Your task to perform on an android device: open app "Lyft - Rideshare, Bikes, Scooters & Transit" (install if not already installed), go to login, and select forgot password Image 0: 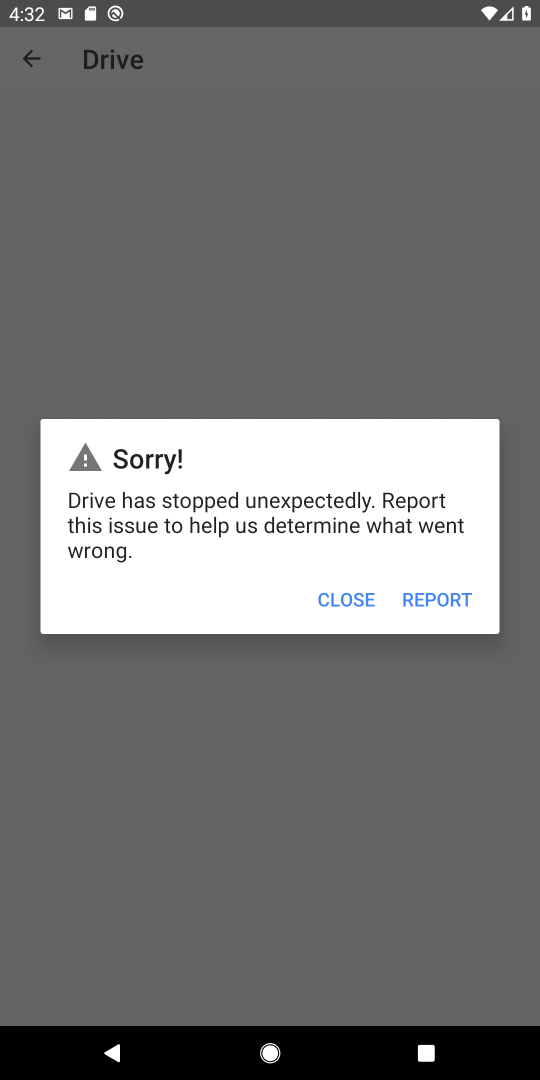
Step 0: press home button
Your task to perform on an android device: open app "Lyft - Rideshare, Bikes, Scooters & Transit" (install if not already installed), go to login, and select forgot password Image 1: 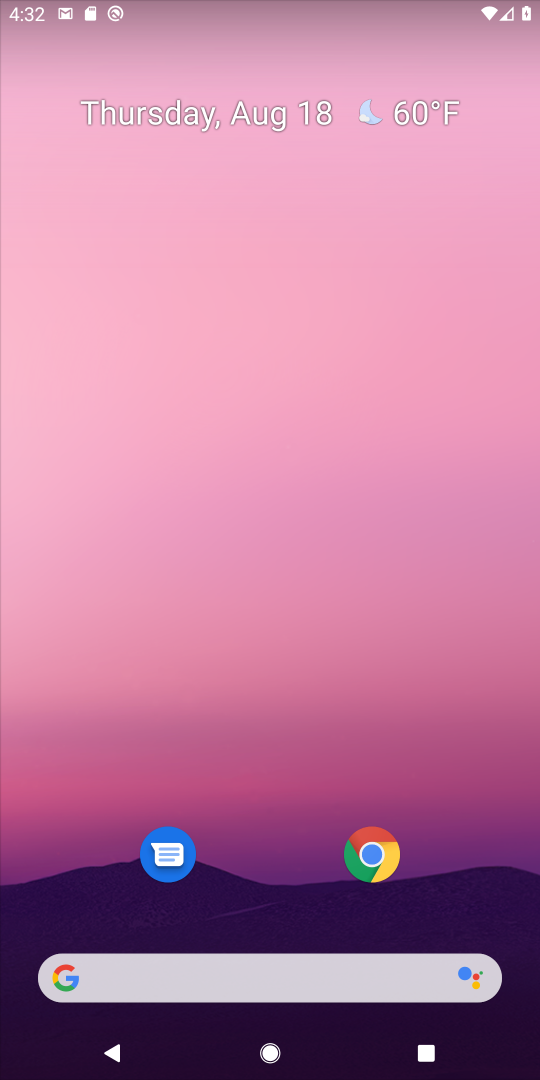
Step 1: drag from (263, 856) to (357, 101)
Your task to perform on an android device: open app "Lyft - Rideshare, Bikes, Scooters & Transit" (install if not already installed), go to login, and select forgot password Image 2: 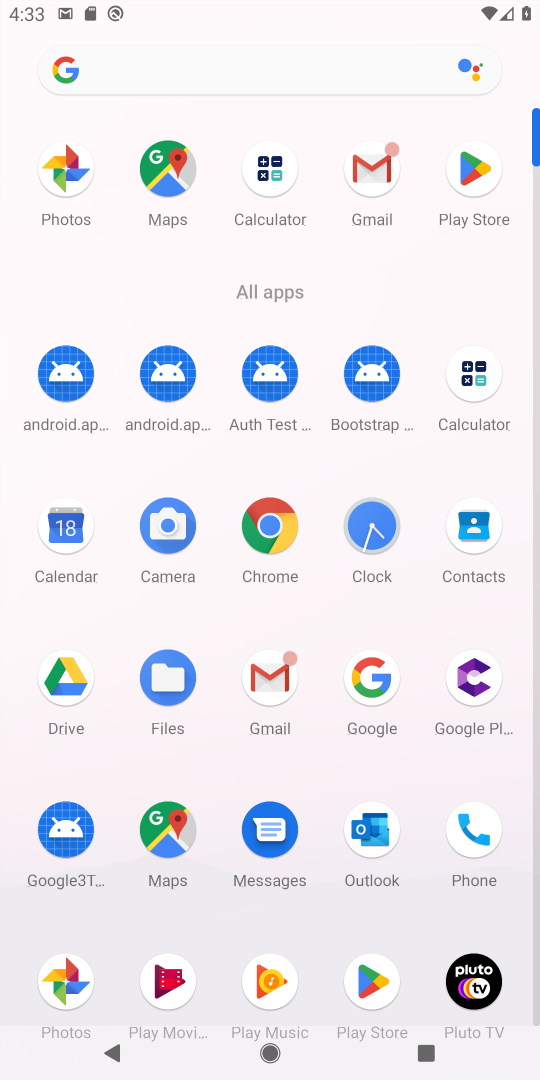
Step 2: click (477, 171)
Your task to perform on an android device: open app "Lyft - Rideshare, Bikes, Scooters & Transit" (install if not already installed), go to login, and select forgot password Image 3: 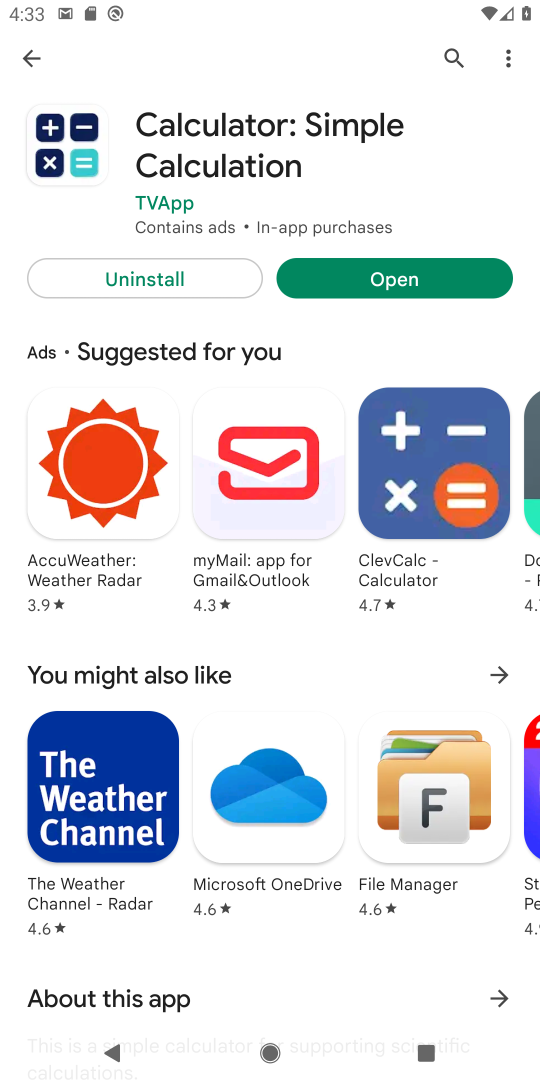
Step 3: click (32, 55)
Your task to perform on an android device: open app "Lyft - Rideshare, Bikes, Scooters & Transit" (install if not already installed), go to login, and select forgot password Image 4: 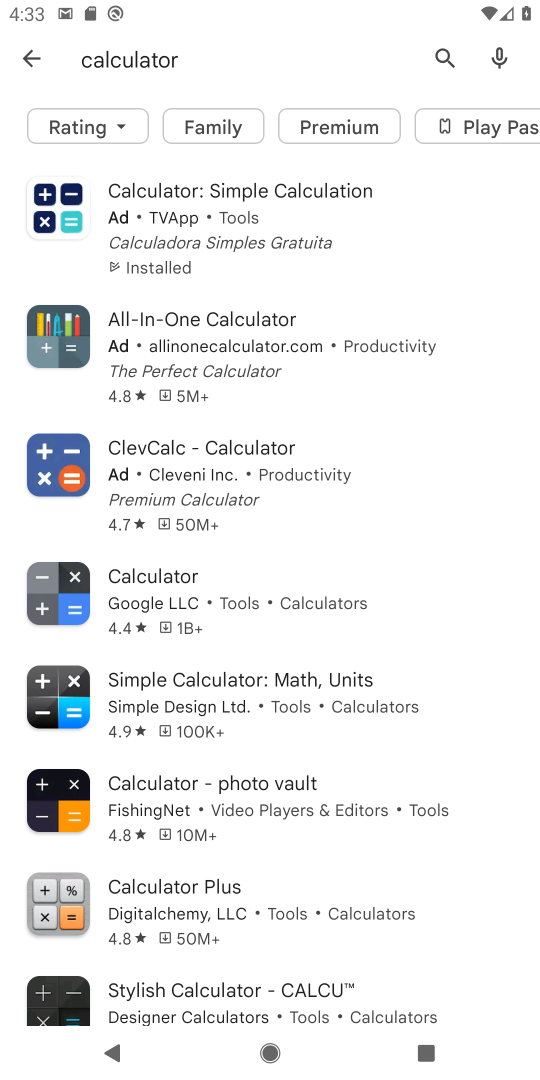
Step 4: click (34, 55)
Your task to perform on an android device: open app "Lyft - Rideshare, Bikes, Scooters & Transit" (install if not already installed), go to login, and select forgot password Image 5: 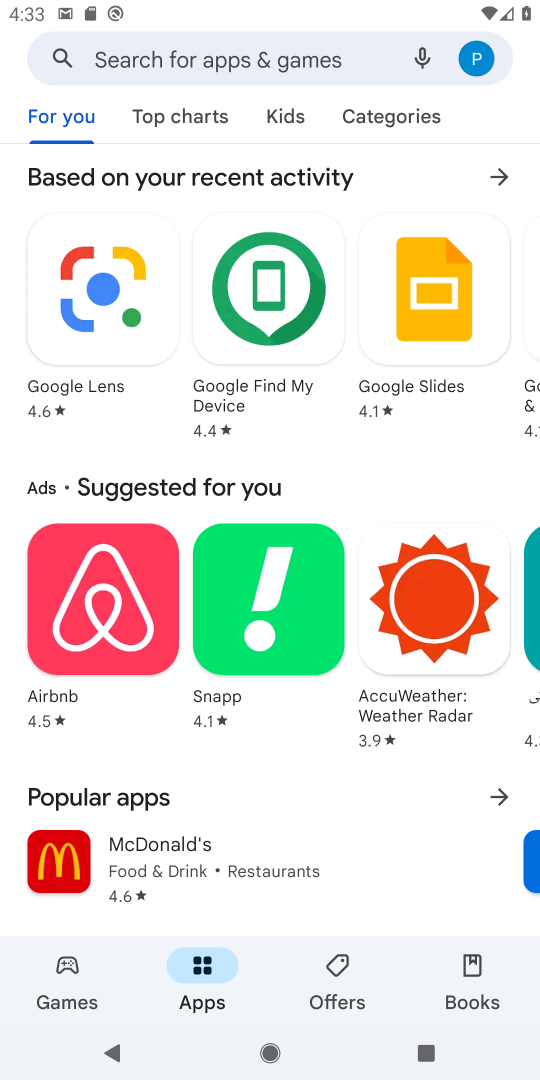
Step 5: click (236, 55)
Your task to perform on an android device: open app "Lyft - Rideshare, Bikes, Scooters & Transit" (install if not already installed), go to login, and select forgot password Image 6: 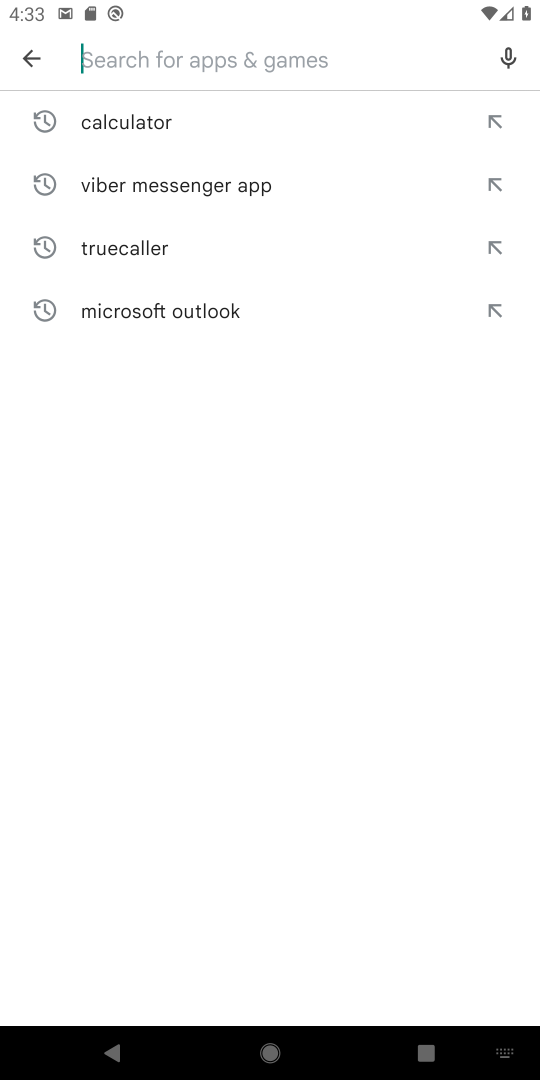
Step 6: type "Lyft"
Your task to perform on an android device: open app "Lyft - Rideshare, Bikes, Scooters & Transit" (install if not already installed), go to login, and select forgot password Image 7: 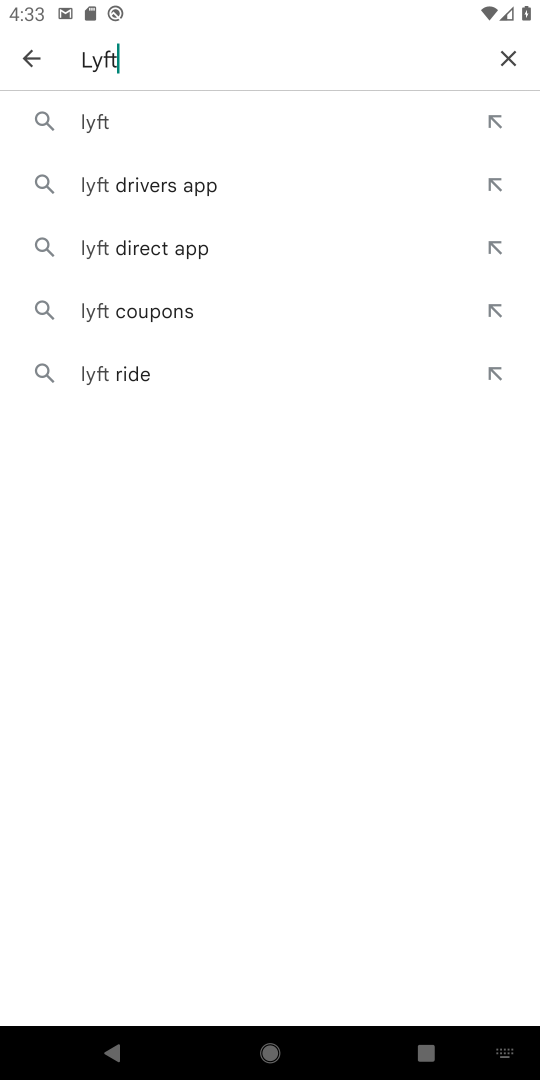
Step 7: click (85, 122)
Your task to perform on an android device: open app "Lyft - Rideshare, Bikes, Scooters & Transit" (install if not already installed), go to login, and select forgot password Image 8: 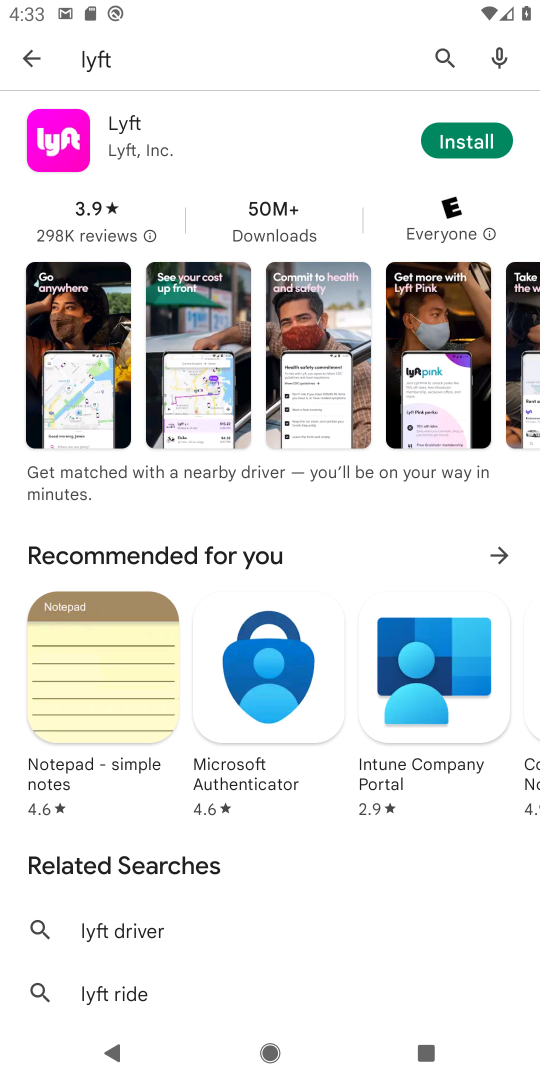
Step 8: click (465, 157)
Your task to perform on an android device: open app "Lyft - Rideshare, Bikes, Scooters & Transit" (install if not already installed), go to login, and select forgot password Image 9: 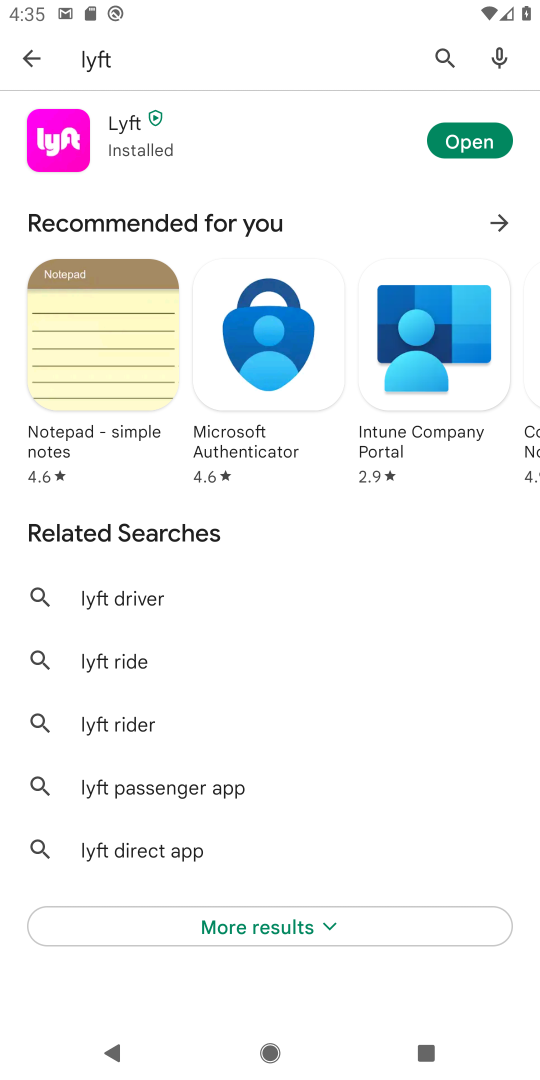
Step 9: click (465, 157)
Your task to perform on an android device: open app "Lyft - Rideshare, Bikes, Scooters & Transit" (install if not already installed), go to login, and select forgot password Image 10: 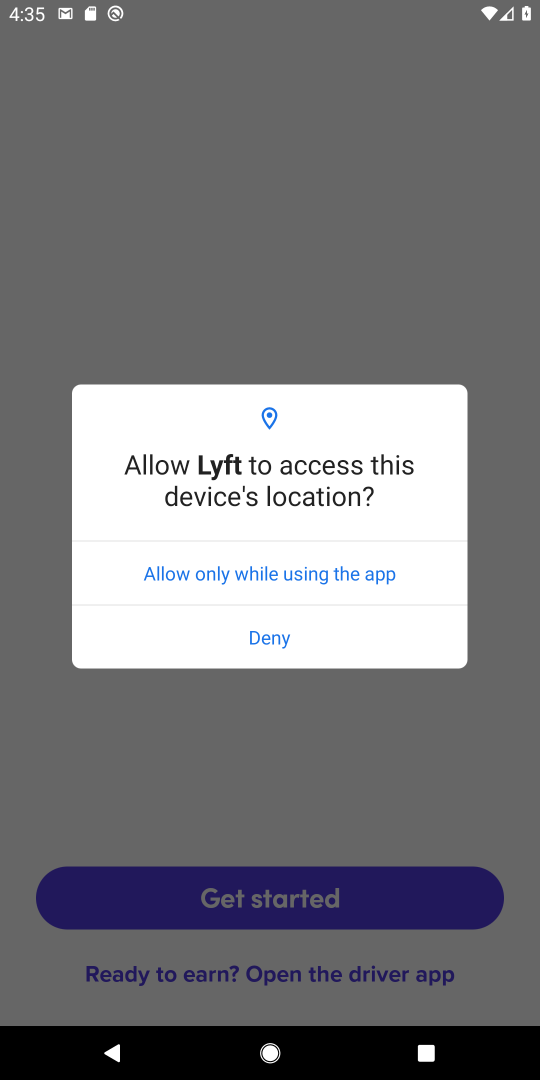
Step 10: click (284, 568)
Your task to perform on an android device: open app "Lyft - Rideshare, Bikes, Scooters & Transit" (install if not already installed), go to login, and select forgot password Image 11: 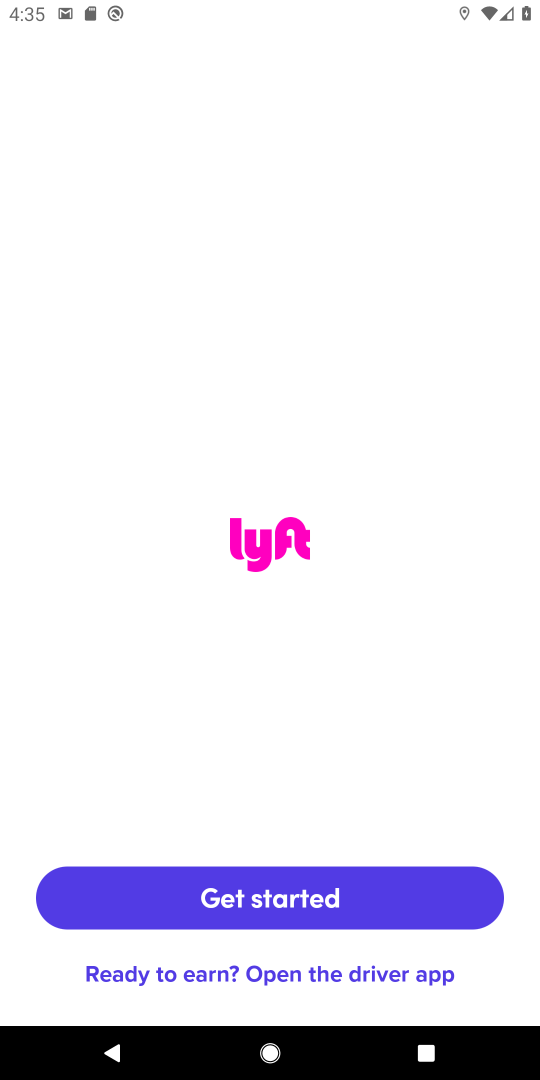
Step 11: task complete